Your task to perform on an android device: Open Wikipedia Image 0: 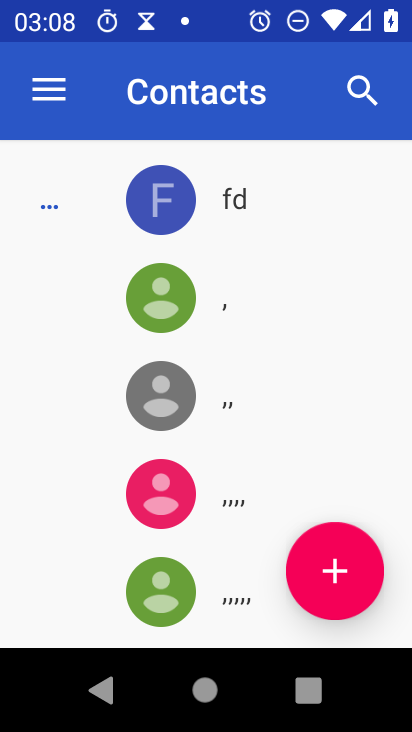
Step 0: press home button
Your task to perform on an android device: Open Wikipedia Image 1: 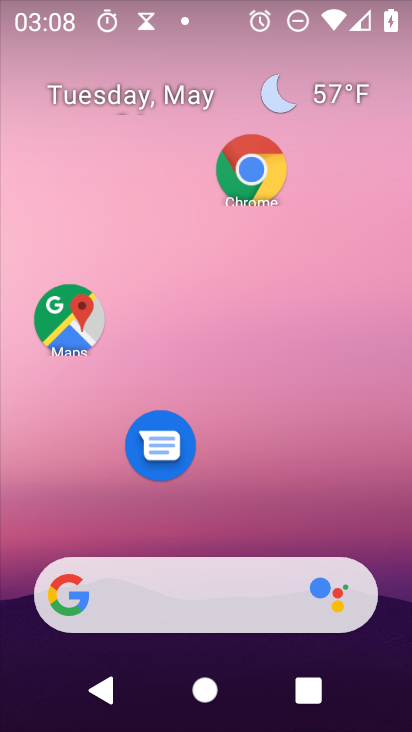
Step 1: drag from (227, 719) to (227, 161)
Your task to perform on an android device: Open Wikipedia Image 2: 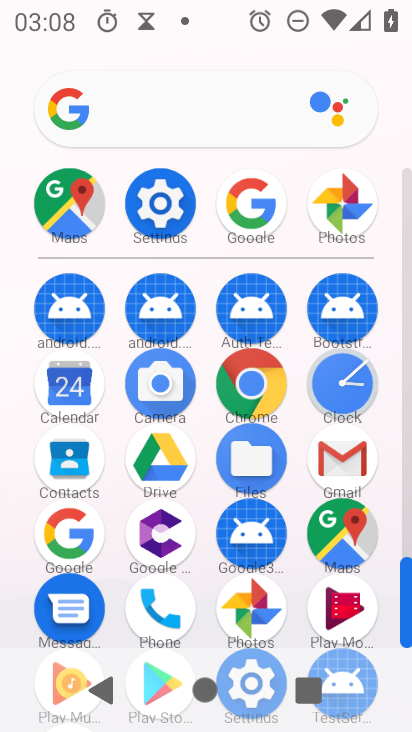
Step 2: click (250, 379)
Your task to perform on an android device: Open Wikipedia Image 3: 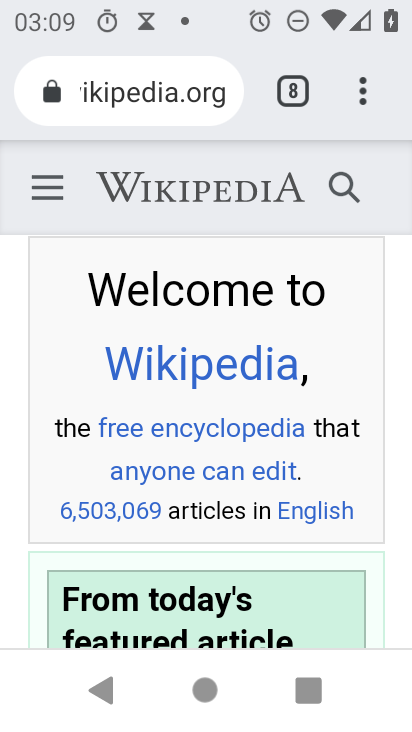
Step 3: task complete